Your task to perform on an android device: Show me the alarms in the clock app Image 0: 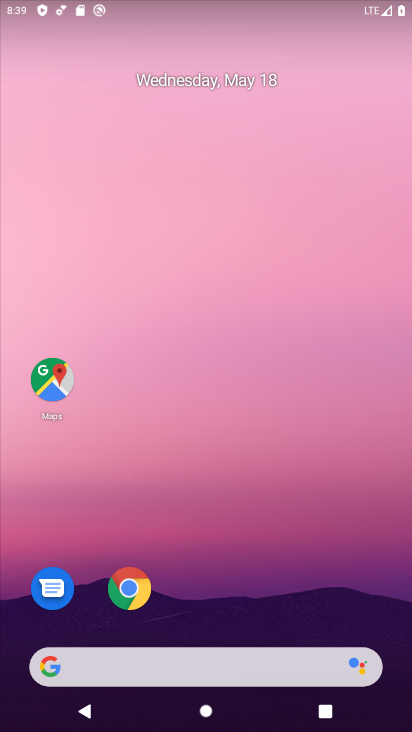
Step 0: drag from (307, 636) to (375, 13)
Your task to perform on an android device: Show me the alarms in the clock app Image 1: 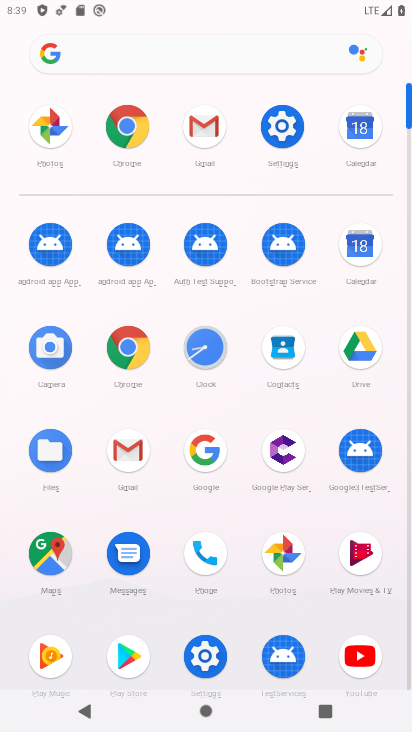
Step 1: click (202, 352)
Your task to perform on an android device: Show me the alarms in the clock app Image 2: 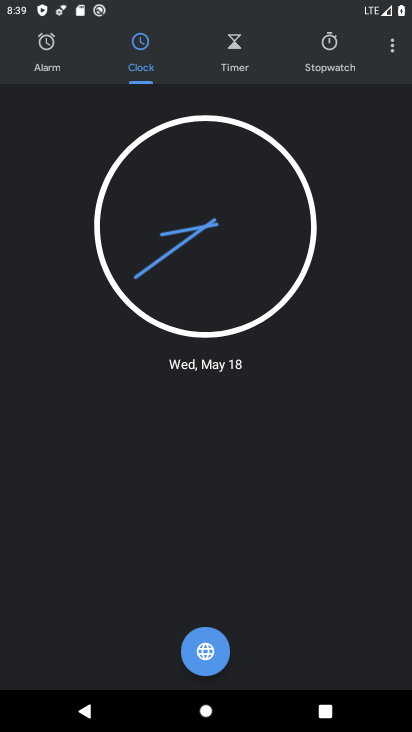
Step 2: click (37, 49)
Your task to perform on an android device: Show me the alarms in the clock app Image 3: 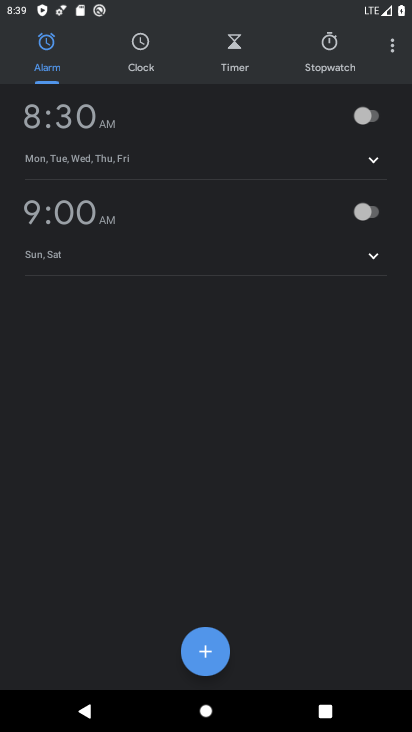
Step 3: task complete